Your task to perform on an android device: Turn on the flashlight Image 0: 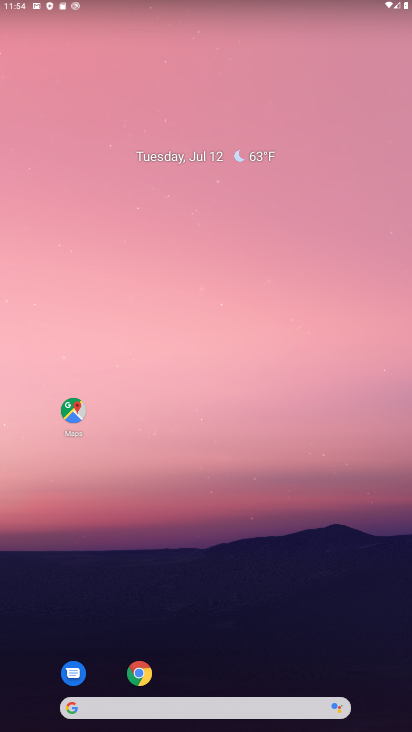
Step 0: drag from (242, 625) to (294, 717)
Your task to perform on an android device: Turn on the flashlight Image 1: 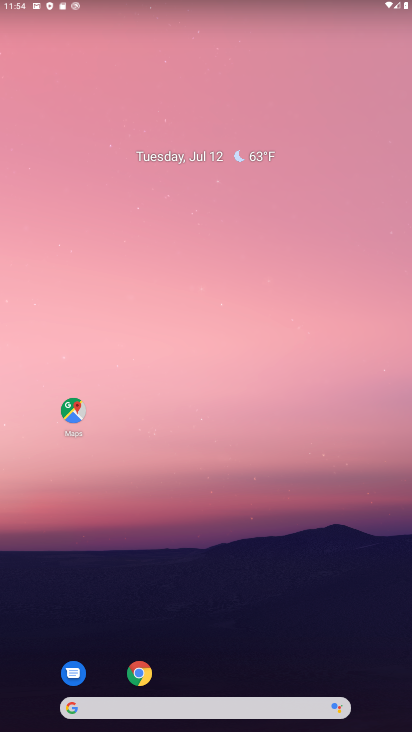
Step 1: task complete